Your task to perform on an android device: turn off priority inbox in the gmail app Image 0: 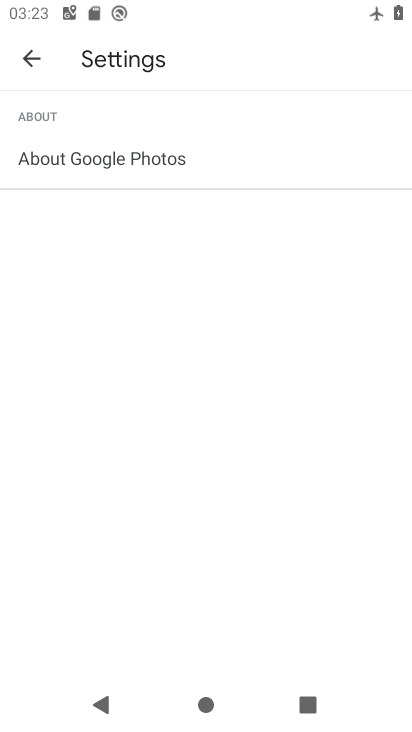
Step 0: press home button
Your task to perform on an android device: turn off priority inbox in the gmail app Image 1: 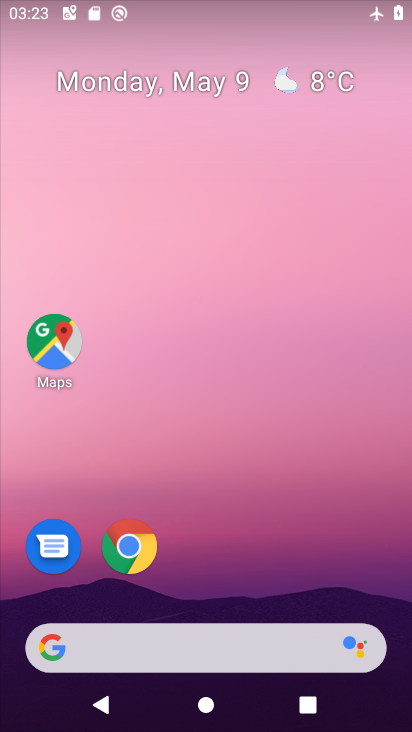
Step 1: drag from (240, 520) to (189, 18)
Your task to perform on an android device: turn off priority inbox in the gmail app Image 2: 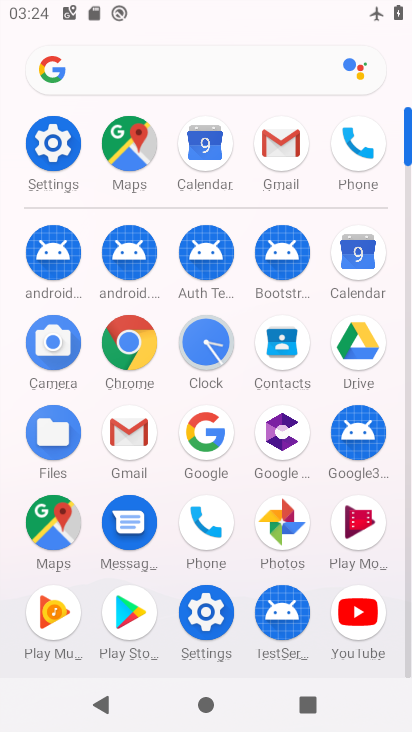
Step 2: click (272, 148)
Your task to perform on an android device: turn off priority inbox in the gmail app Image 3: 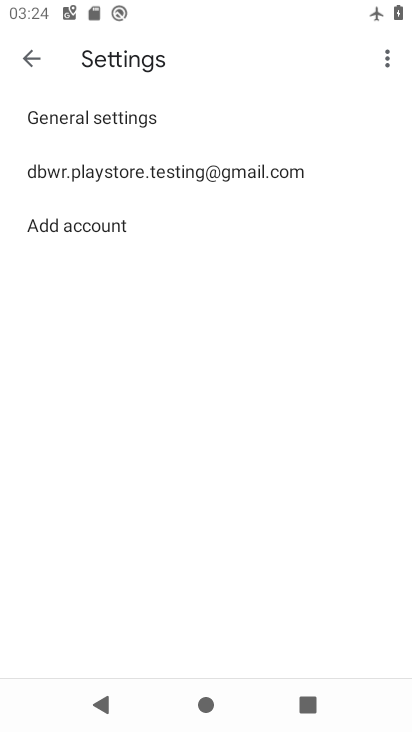
Step 3: click (243, 173)
Your task to perform on an android device: turn off priority inbox in the gmail app Image 4: 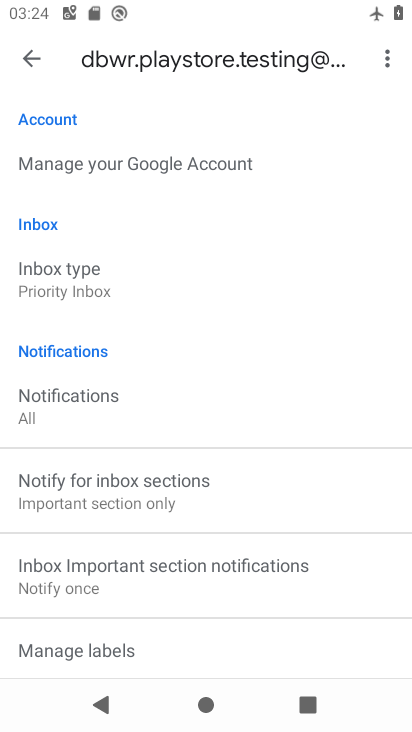
Step 4: click (103, 271)
Your task to perform on an android device: turn off priority inbox in the gmail app Image 5: 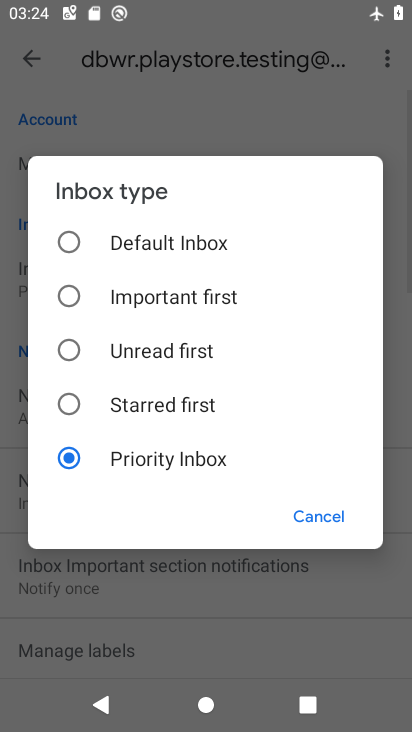
Step 5: click (61, 232)
Your task to perform on an android device: turn off priority inbox in the gmail app Image 6: 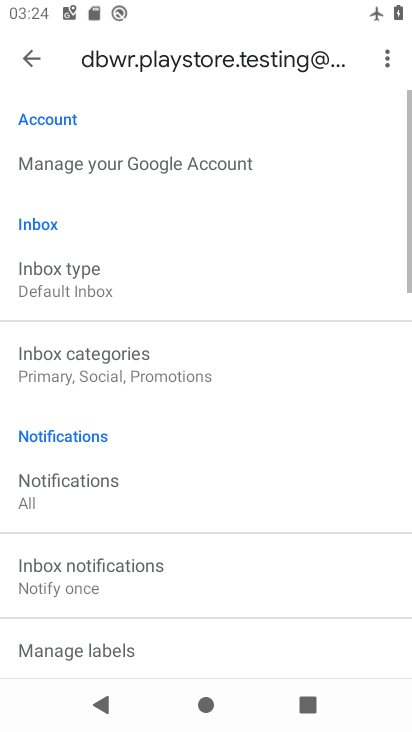
Step 6: task complete